Your task to perform on an android device: Open CNN.com Image 0: 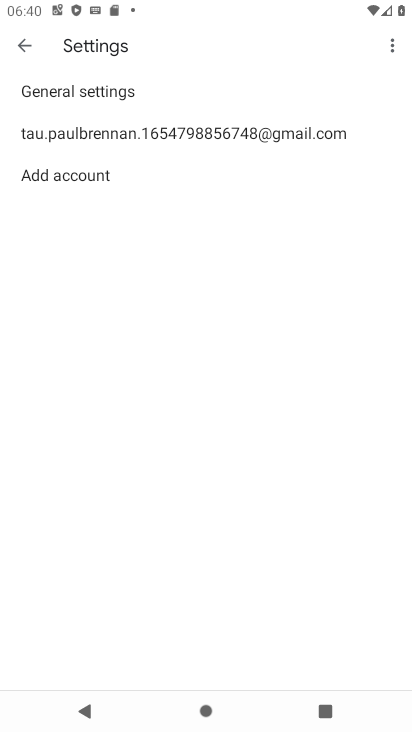
Step 0: press home button
Your task to perform on an android device: Open CNN.com Image 1: 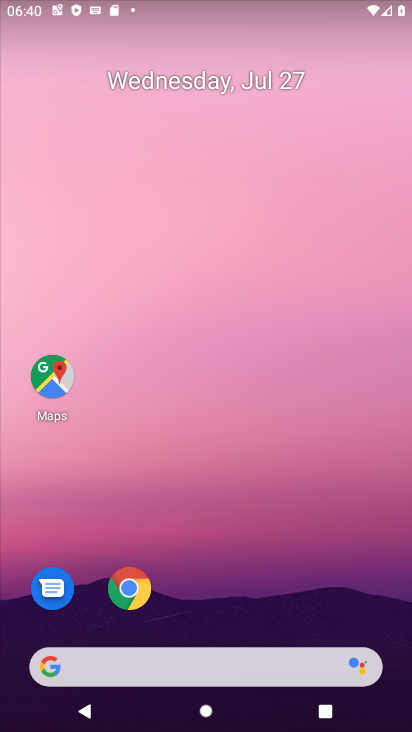
Step 1: drag from (306, 564) to (269, 7)
Your task to perform on an android device: Open CNN.com Image 2: 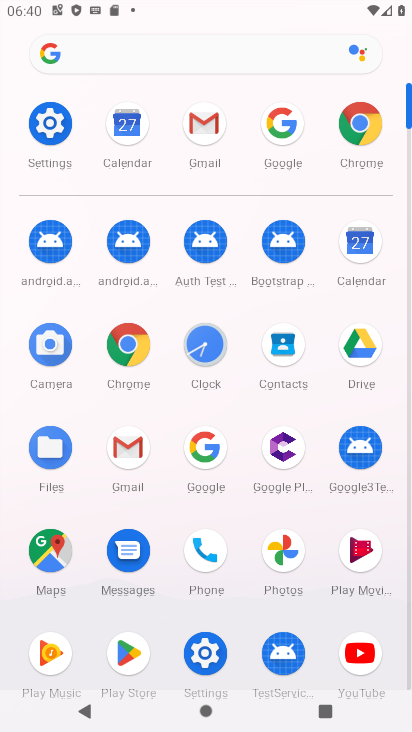
Step 2: click (131, 332)
Your task to perform on an android device: Open CNN.com Image 3: 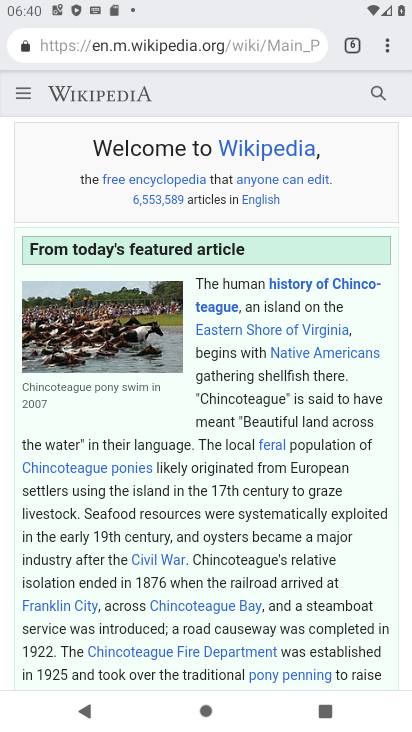
Step 3: click (194, 41)
Your task to perform on an android device: Open CNN.com Image 4: 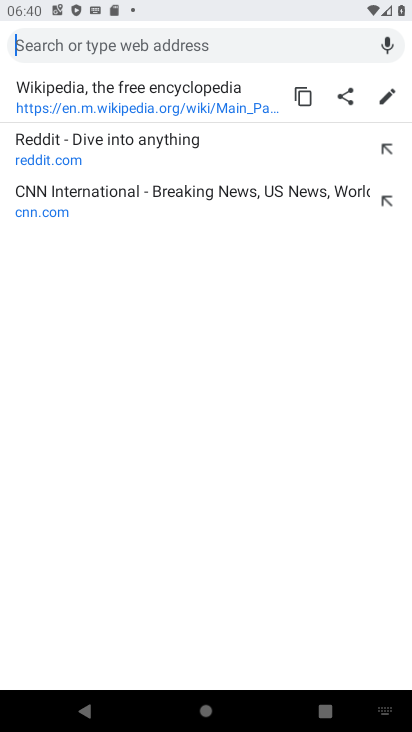
Step 4: type "cnn.com"
Your task to perform on an android device: Open CNN.com Image 5: 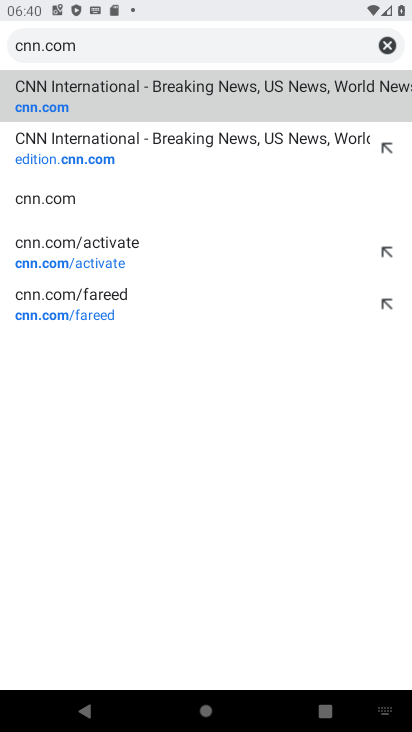
Step 5: click (273, 97)
Your task to perform on an android device: Open CNN.com Image 6: 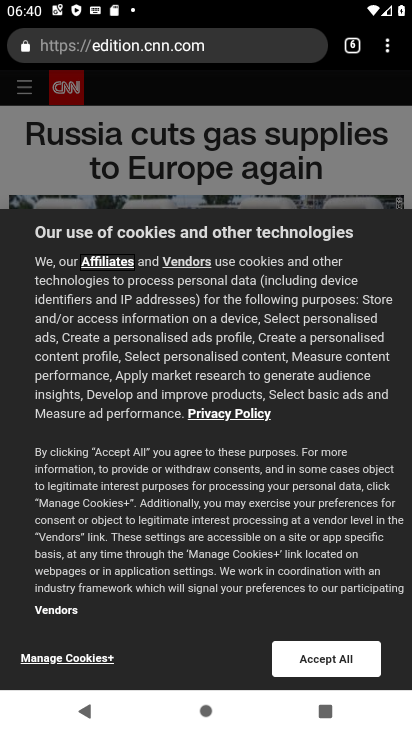
Step 6: task complete